Your task to perform on an android device: Go to battery settings Image 0: 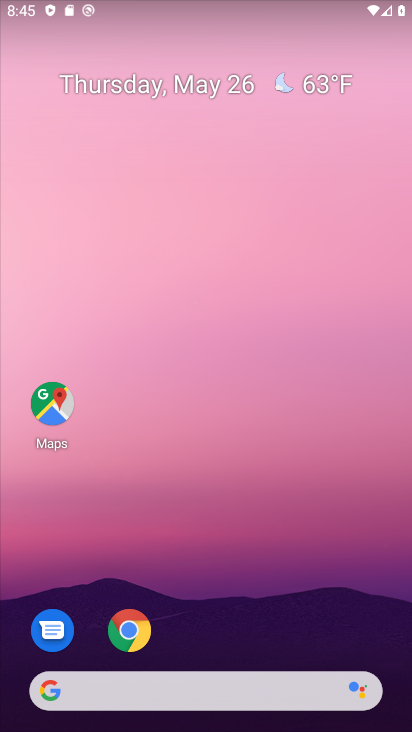
Step 0: drag from (185, 687) to (234, 0)
Your task to perform on an android device: Go to battery settings Image 1: 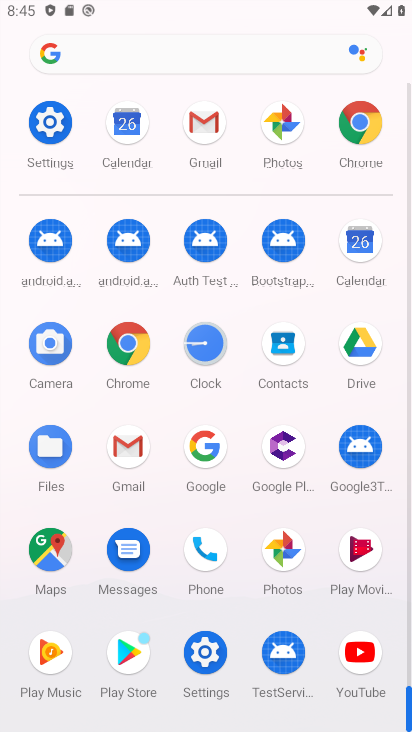
Step 1: click (202, 660)
Your task to perform on an android device: Go to battery settings Image 2: 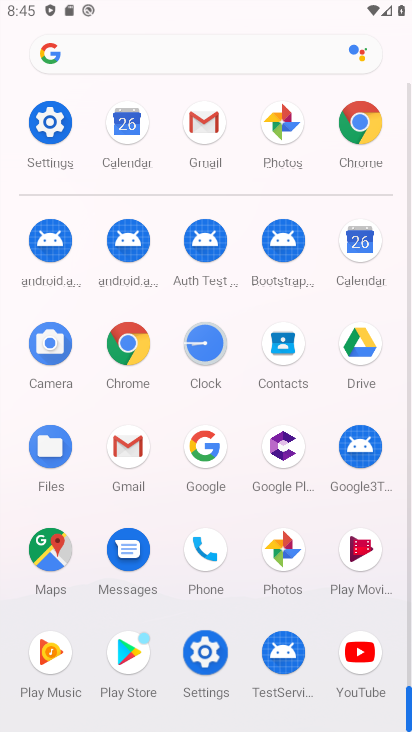
Step 2: click (218, 642)
Your task to perform on an android device: Go to battery settings Image 3: 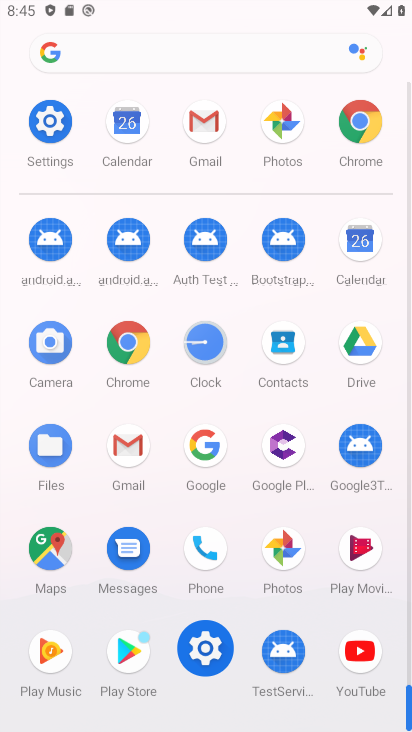
Step 3: click (217, 634)
Your task to perform on an android device: Go to battery settings Image 4: 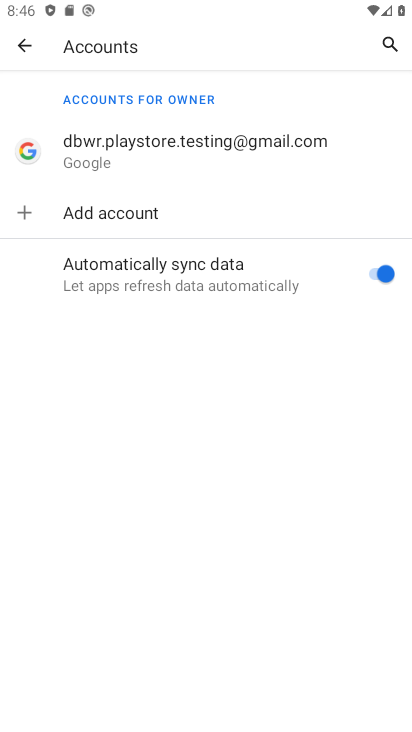
Step 4: click (25, 41)
Your task to perform on an android device: Go to battery settings Image 5: 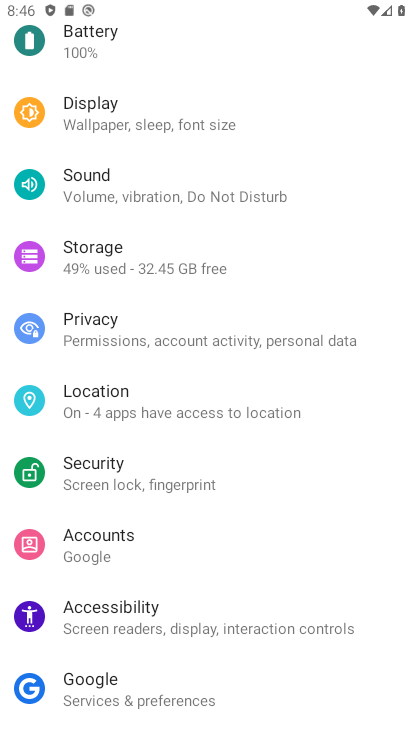
Step 5: click (79, 33)
Your task to perform on an android device: Go to battery settings Image 6: 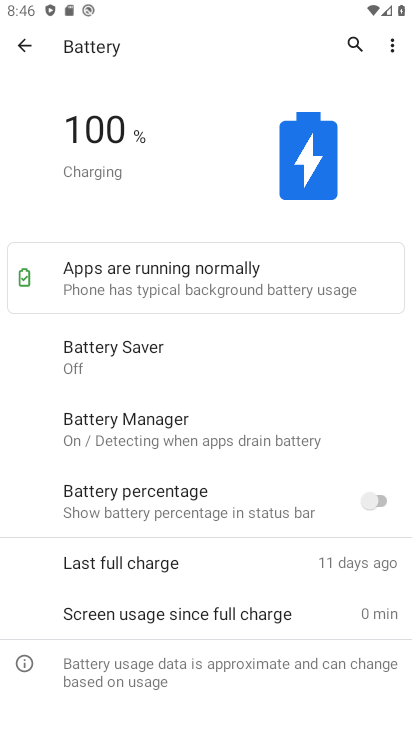
Step 6: task complete